Your task to perform on an android device: uninstall "The Home Depot" Image 0: 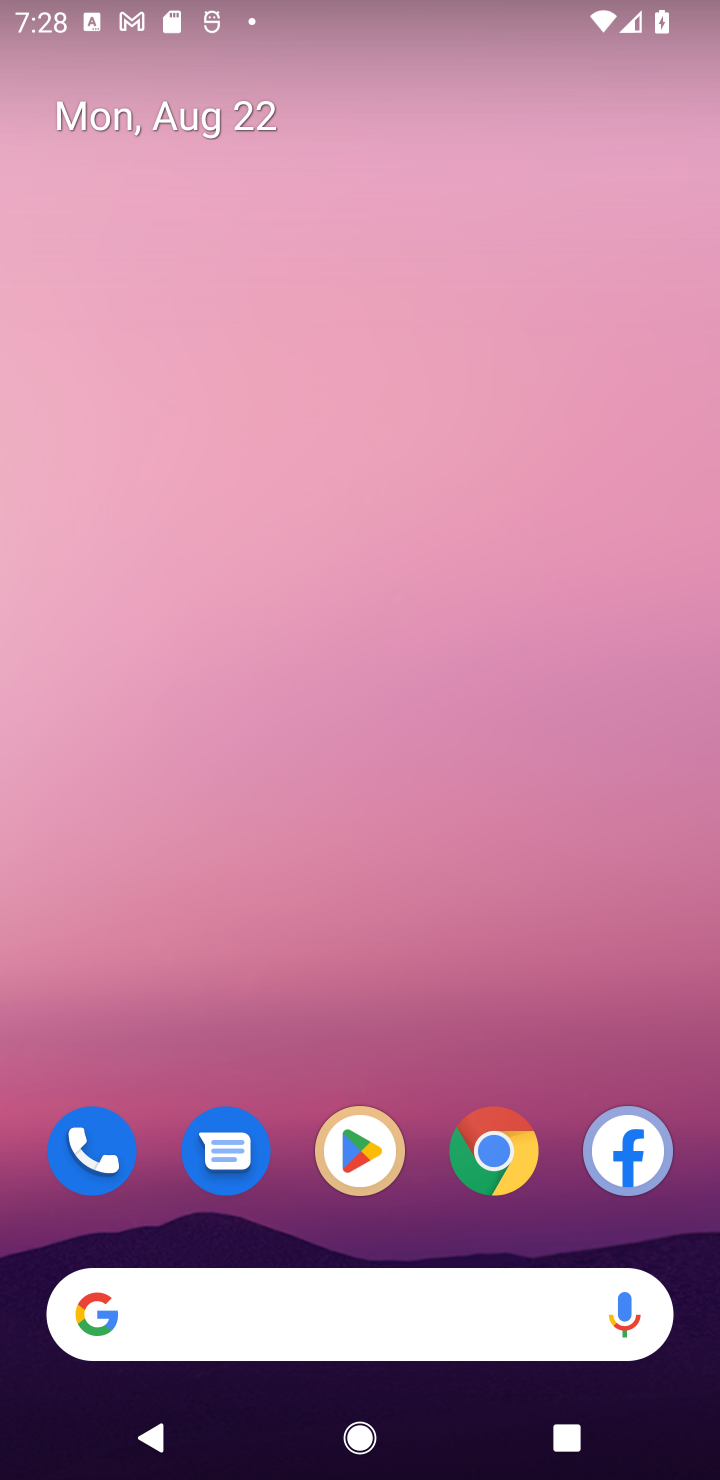
Step 0: click (340, 1149)
Your task to perform on an android device: uninstall "The Home Depot" Image 1: 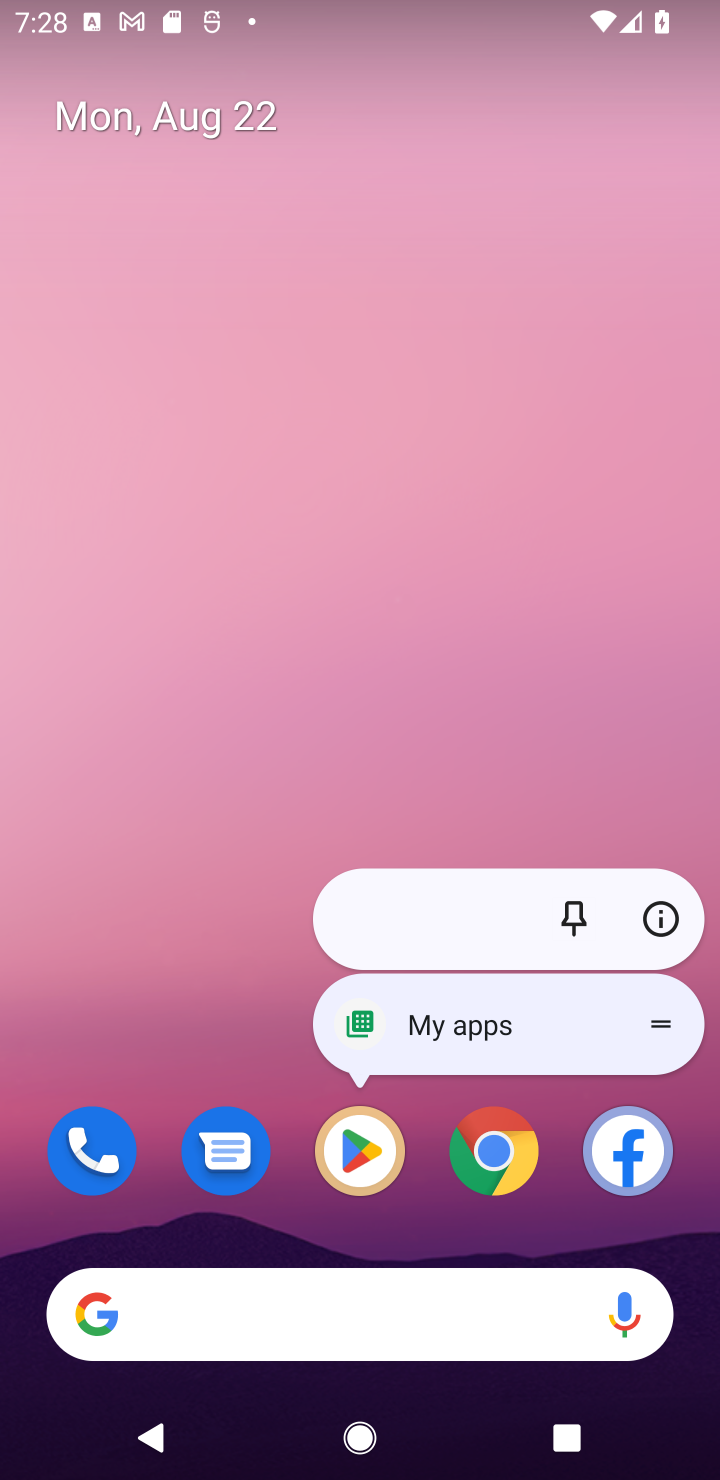
Step 1: click (340, 1154)
Your task to perform on an android device: uninstall "The Home Depot" Image 2: 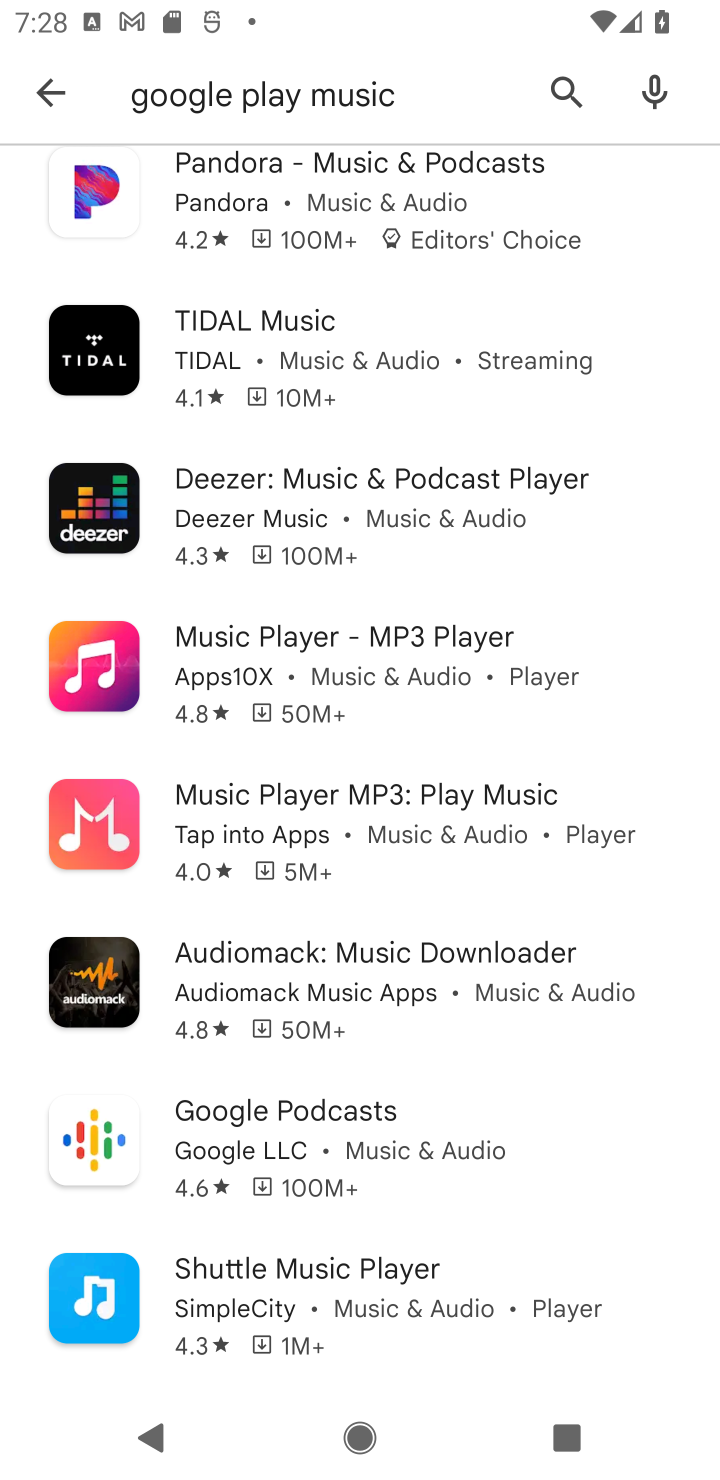
Step 2: click (558, 91)
Your task to perform on an android device: uninstall "The Home Depot" Image 3: 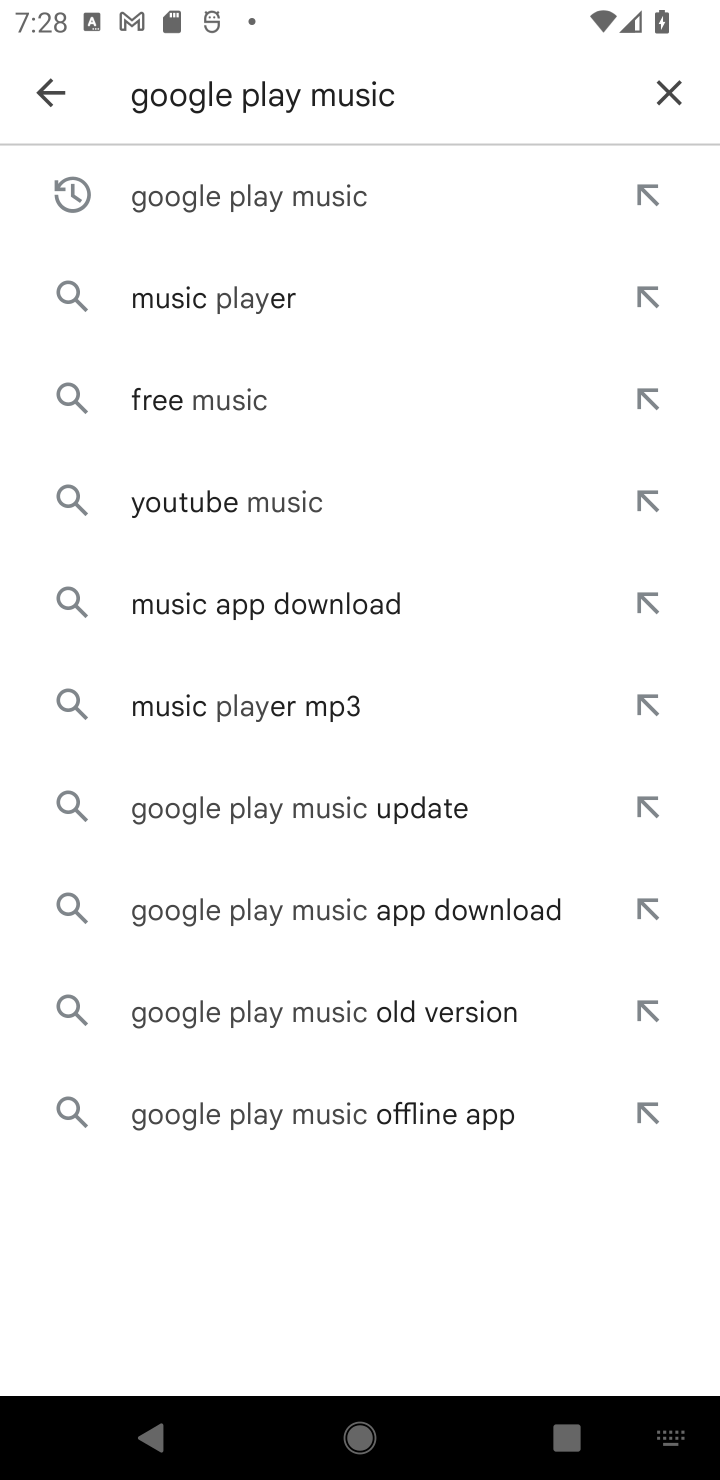
Step 3: click (670, 95)
Your task to perform on an android device: uninstall "The Home Depot" Image 4: 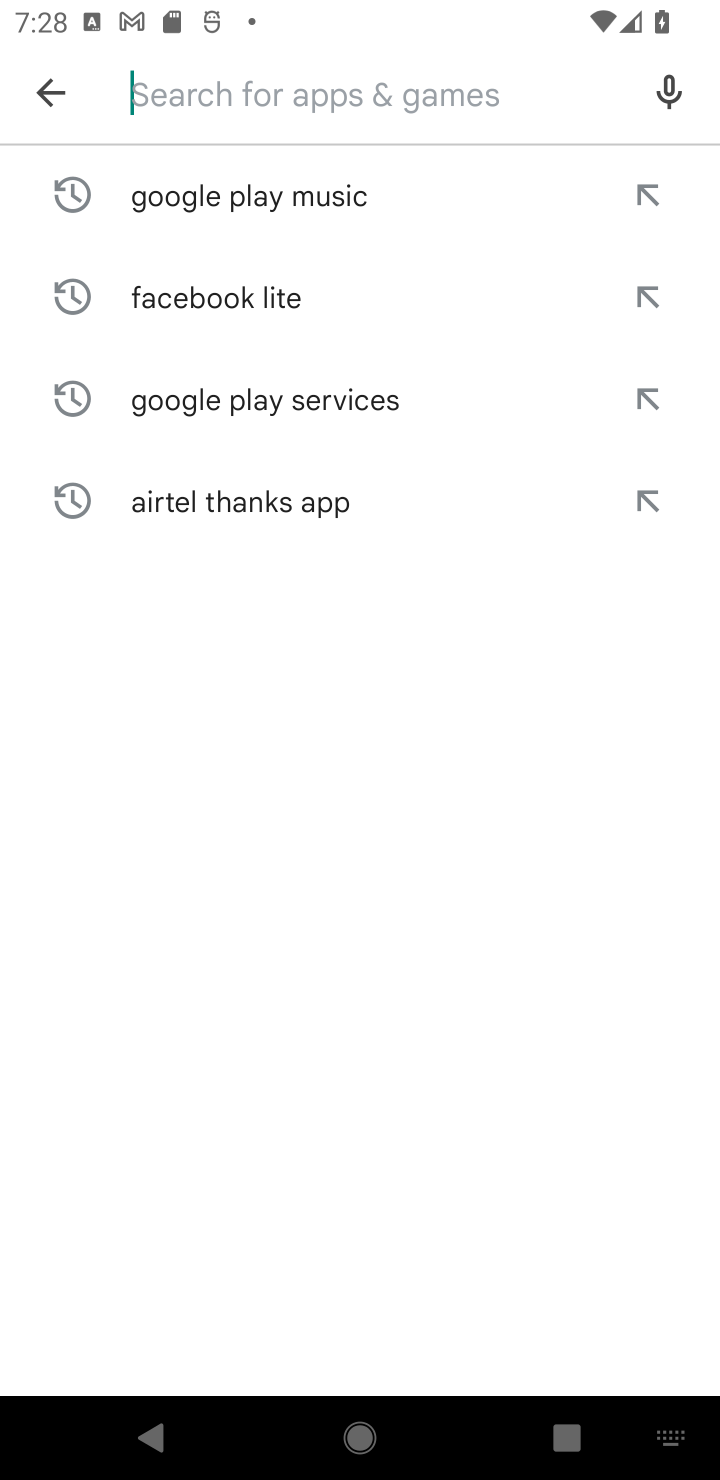
Step 4: type "The Home Depot"
Your task to perform on an android device: uninstall "The Home Depot" Image 5: 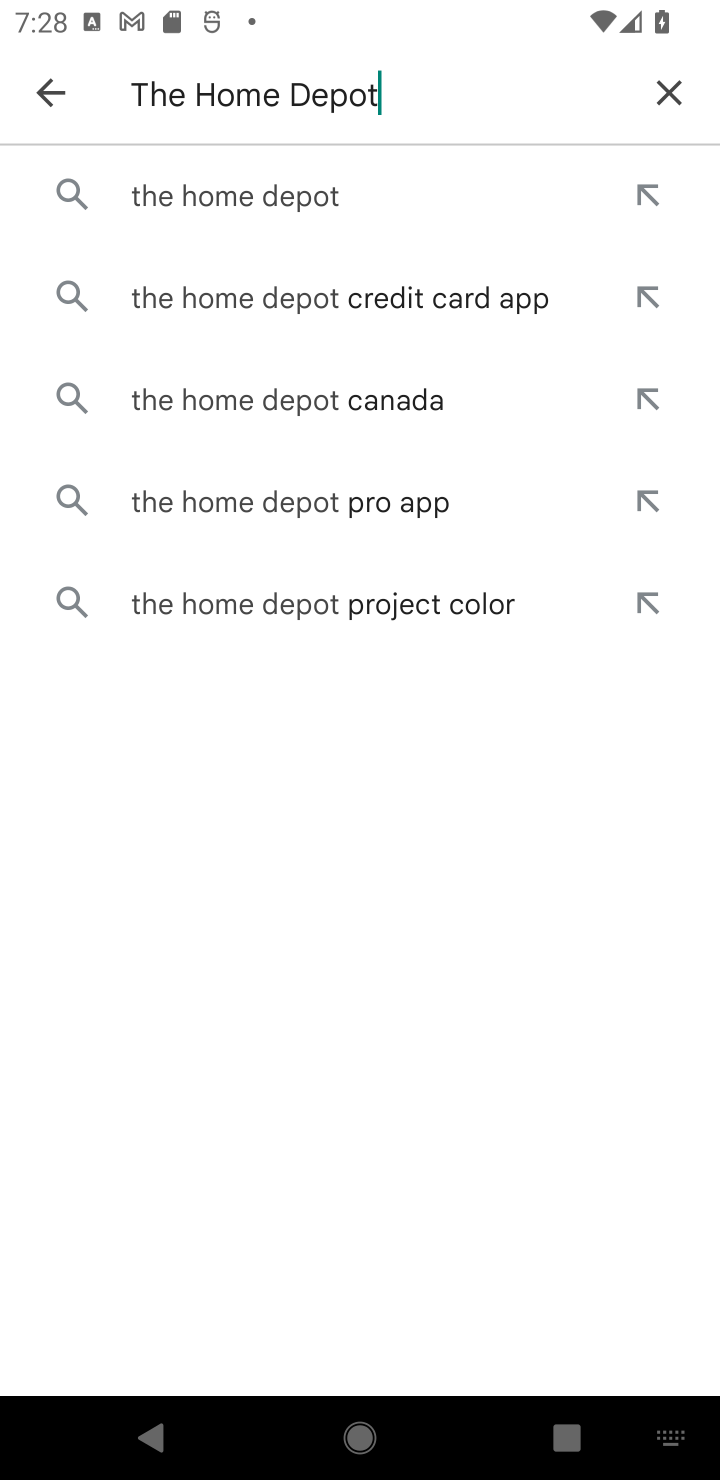
Step 5: click (226, 198)
Your task to perform on an android device: uninstall "The Home Depot" Image 6: 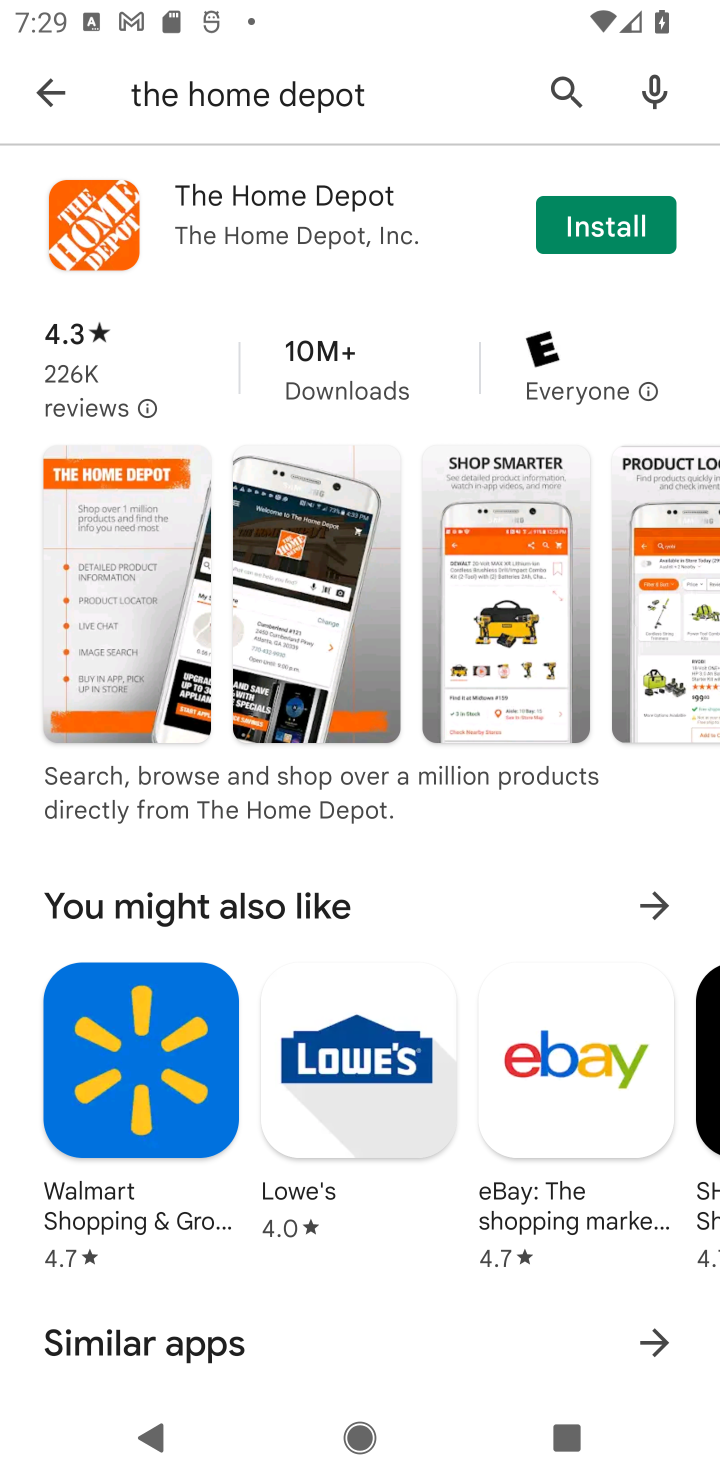
Step 6: task complete